Your task to perform on an android device: Open the map Image 0: 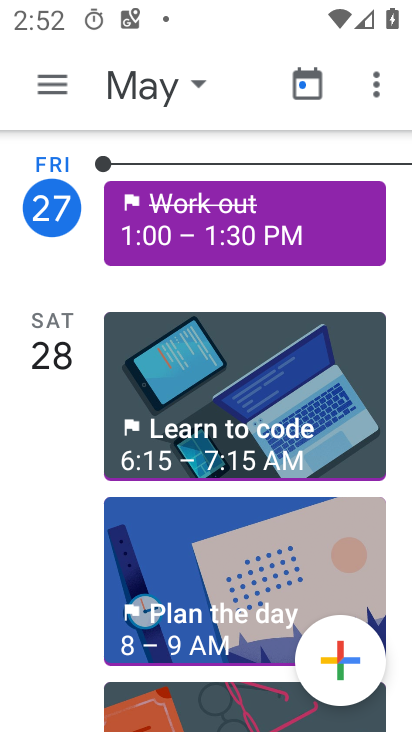
Step 0: press home button
Your task to perform on an android device: Open the map Image 1: 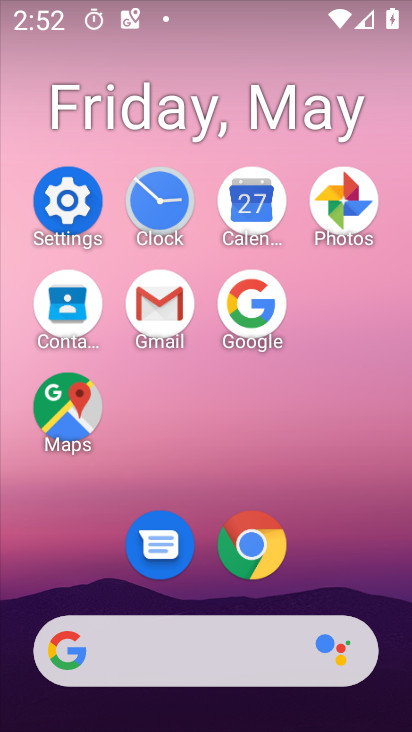
Step 1: click (56, 394)
Your task to perform on an android device: Open the map Image 2: 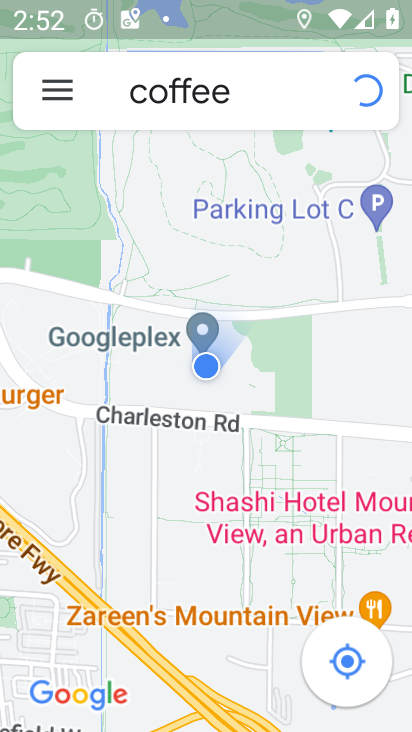
Step 2: task complete